Your task to perform on an android device: star an email in the gmail app Image 0: 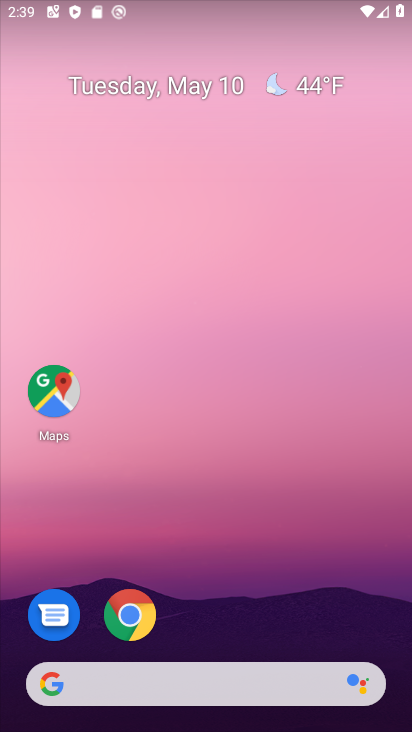
Step 0: drag from (306, 593) to (285, 75)
Your task to perform on an android device: star an email in the gmail app Image 1: 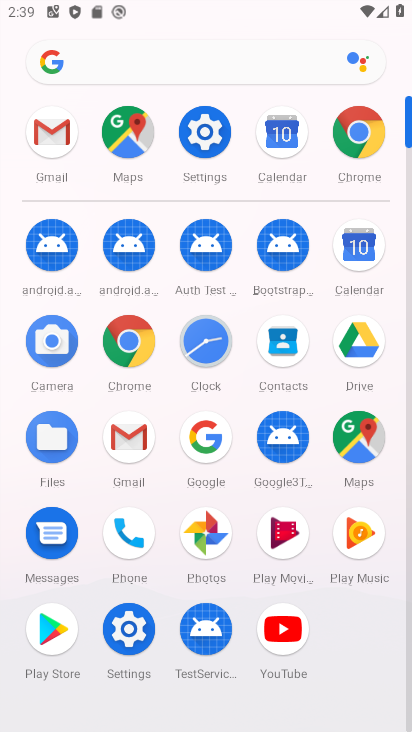
Step 1: click (54, 143)
Your task to perform on an android device: star an email in the gmail app Image 2: 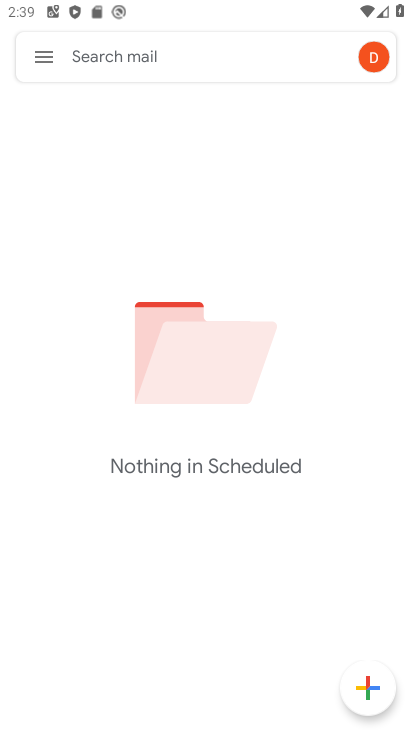
Step 2: click (47, 57)
Your task to perform on an android device: star an email in the gmail app Image 3: 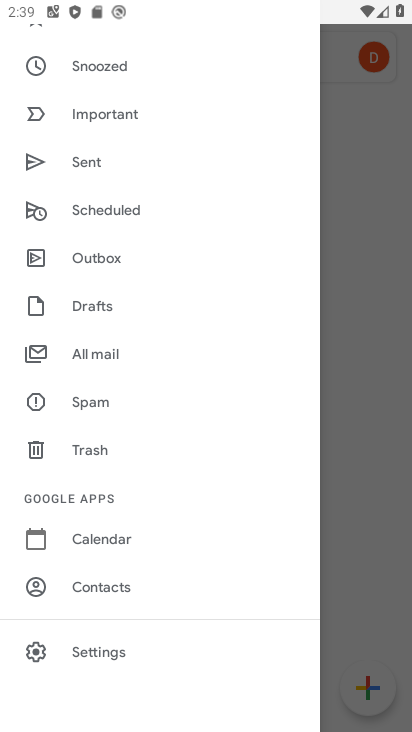
Step 3: task complete